Your task to perform on an android device: toggle wifi Image 0: 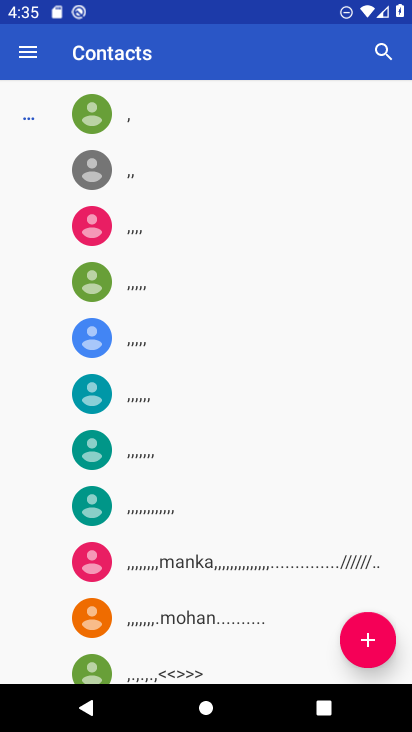
Step 0: press home button
Your task to perform on an android device: toggle wifi Image 1: 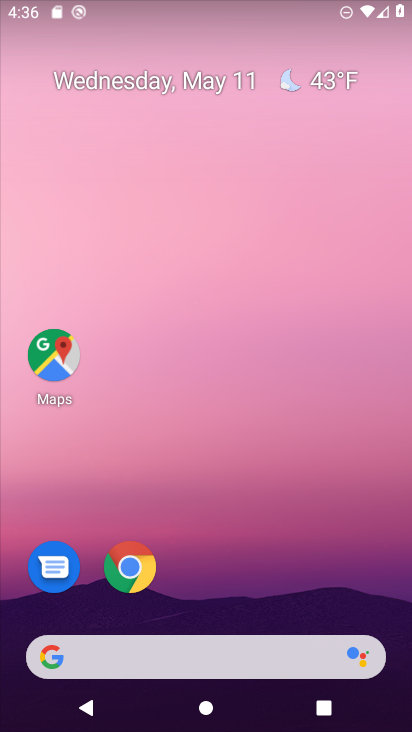
Step 1: drag from (229, 542) to (239, 196)
Your task to perform on an android device: toggle wifi Image 2: 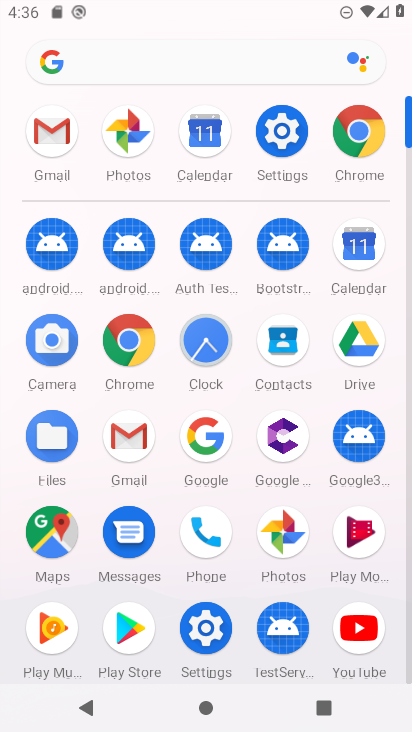
Step 2: click (296, 140)
Your task to perform on an android device: toggle wifi Image 3: 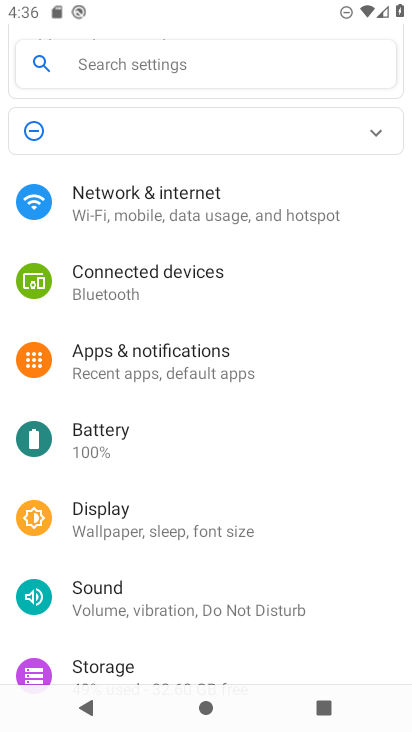
Step 3: click (280, 197)
Your task to perform on an android device: toggle wifi Image 4: 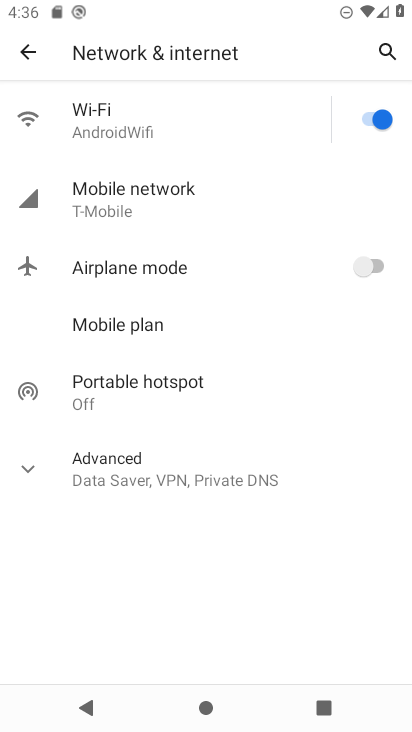
Step 4: click (373, 125)
Your task to perform on an android device: toggle wifi Image 5: 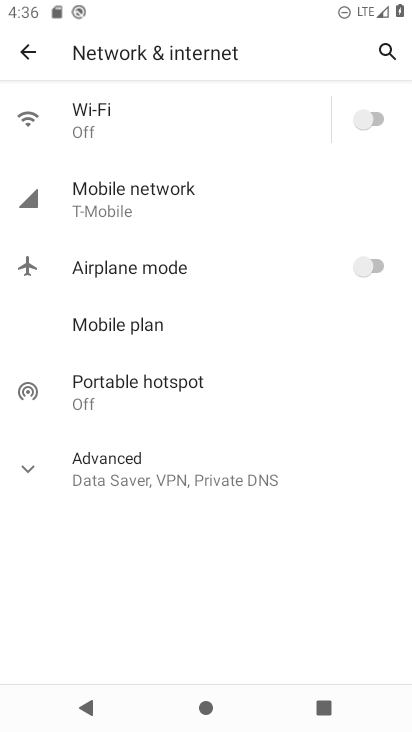
Step 5: task complete